Your task to perform on an android device: Open battery settings Image 0: 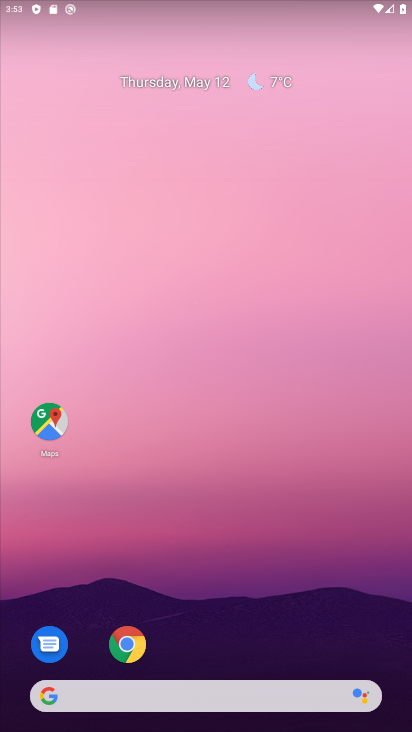
Step 0: drag from (237, 604) to (214, 183)
Your task to perform on an android device: Open battery settings Image 1: 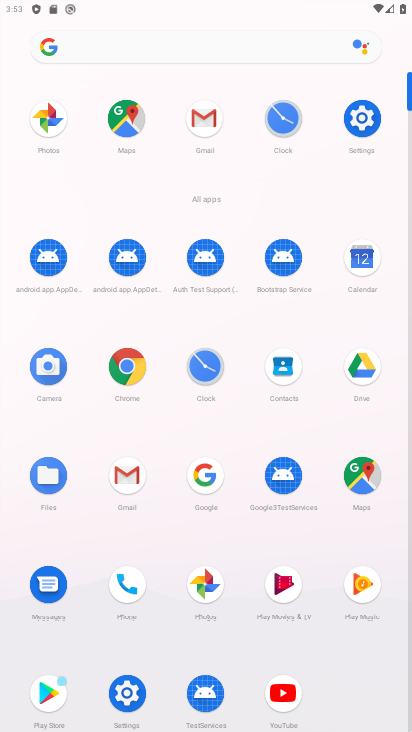
Step 1: click (360, 125)
Your task to perform on an android device: Open battery settings Image 2: 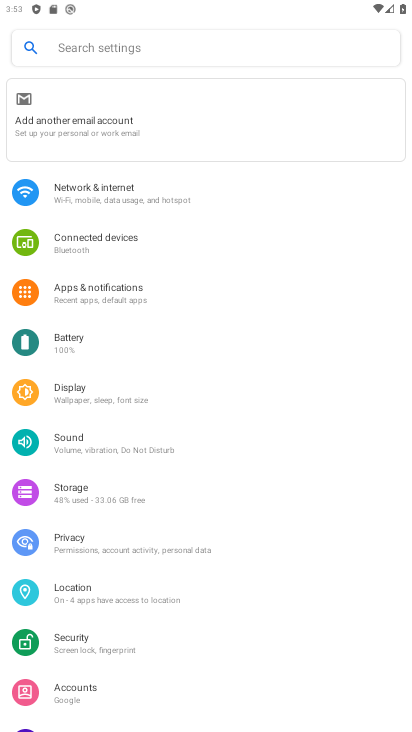
Step 2: click (100, 336)
Your task to perform on an android device: Open battery settings Image 3: 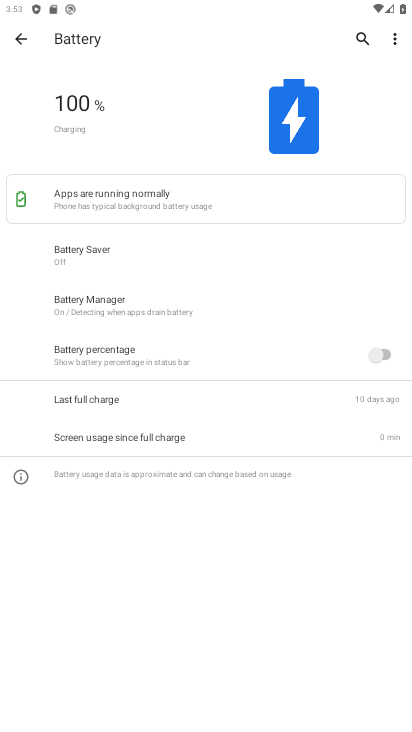
Step 3: task complete